Your task to perform on an android device: check android version Image 0: 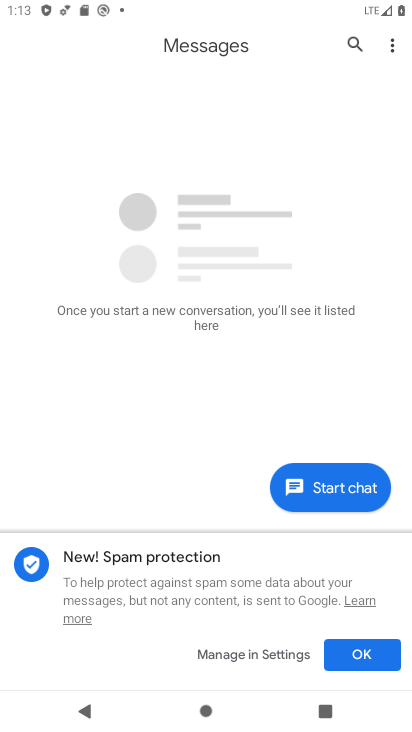
Step 0: press home button
Your task to perform on an android device: check android version Image 1: 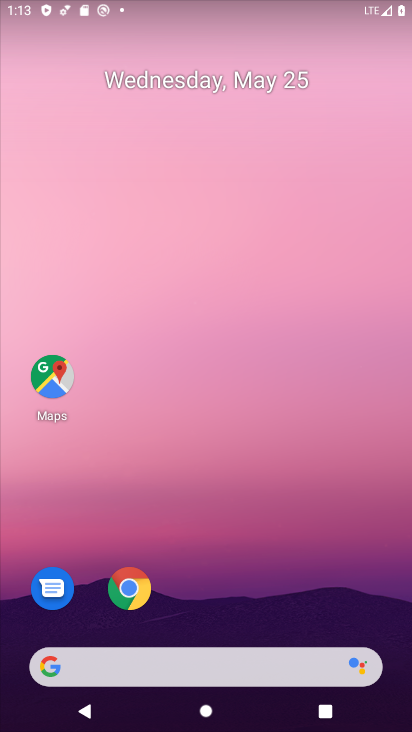
Step 1: drag from (266, 557) to (310, 0)
Your task to perform on an android device: check android version Image 2: 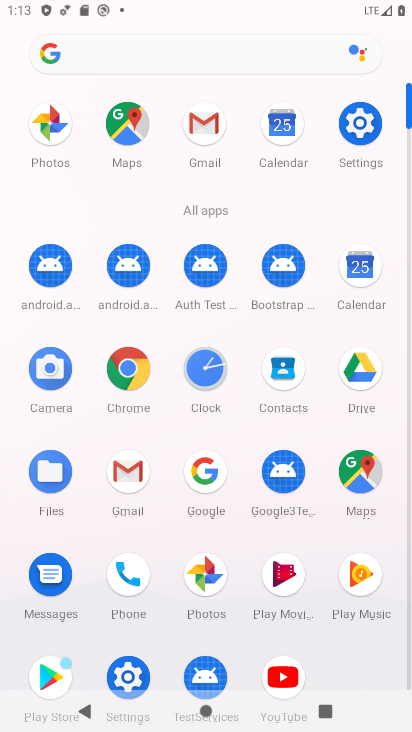
Step 2: click (365, 123)
Your task to perform on an android device: check android version Image 3: 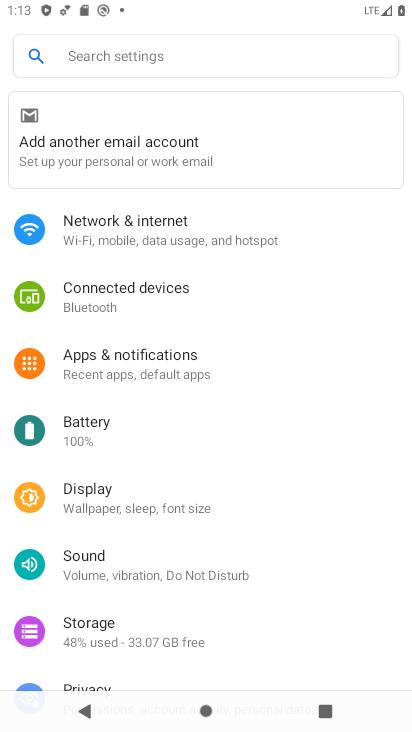
Step 3: drag from (270, 598) to (290, 51)
Your task to perform on an android device: check android version Image 4: 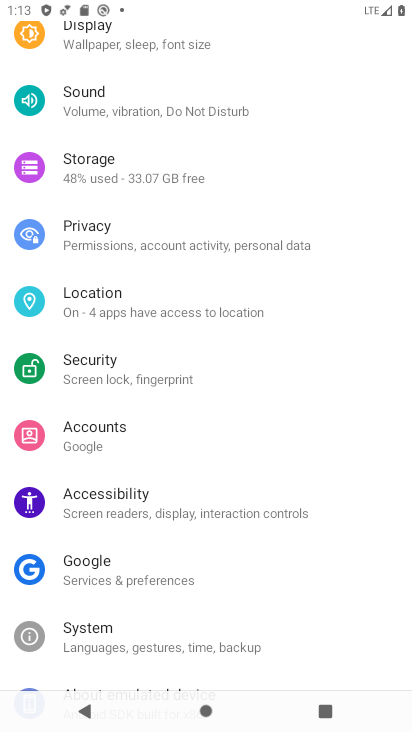
Step 4: drag from (208, 582) to (226, 97)
Your task to perform on an android device: check android version Image 5: 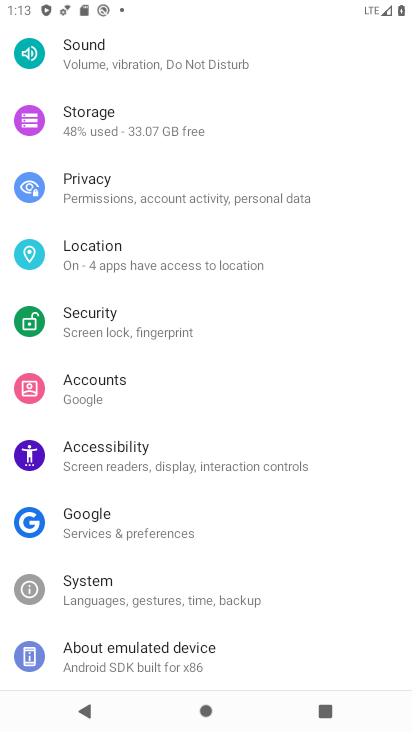
Step 5: click (105, 656)
Your task to perform on an android device: check android version Image 6: 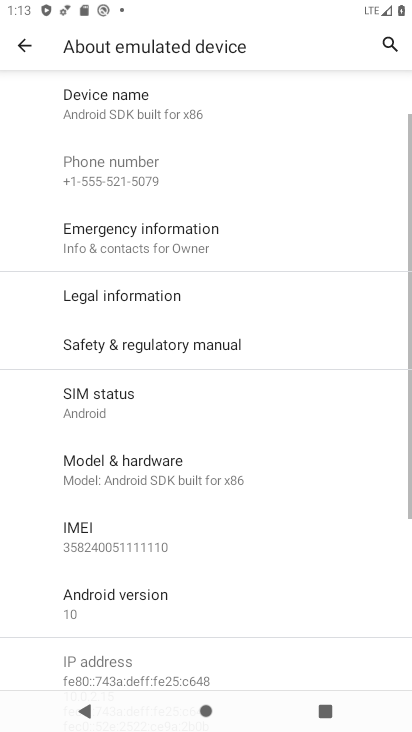
Step 6: click (128, 601)
Your task to perform on an android device: check android version Image 7: 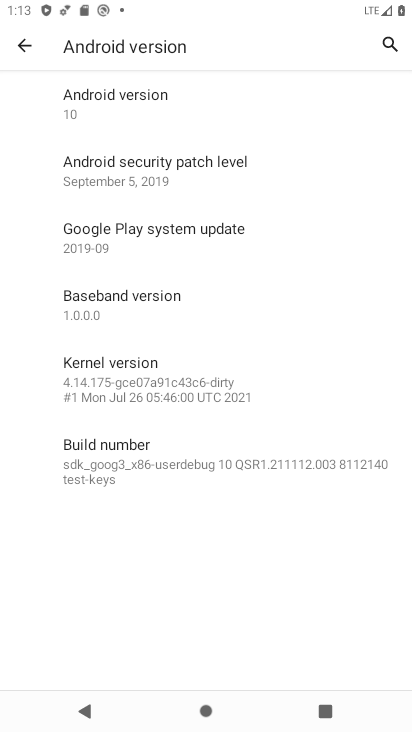
Step 7: task complete